Your task to perform on an android device: Go to eBay Image 0: 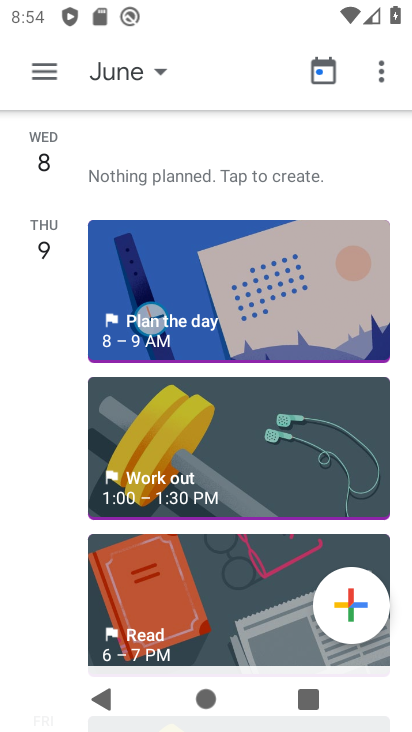
Step 0: press home button
Your task to perform on an android device: Go to eBay Image 1: 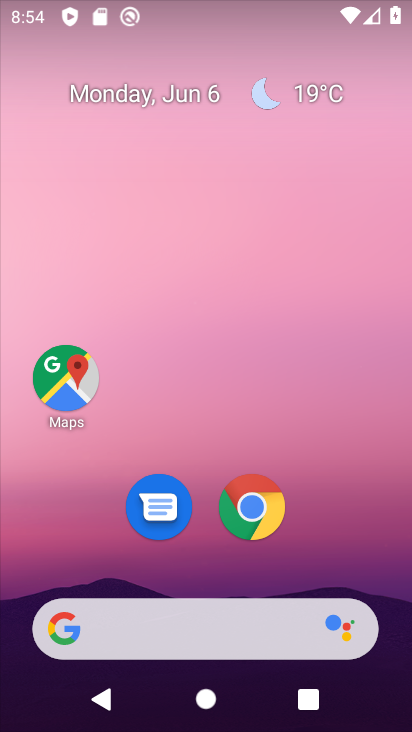
Step 1: click (259, 504)
Your task to perform on an android device: Go to eBay Image 2: 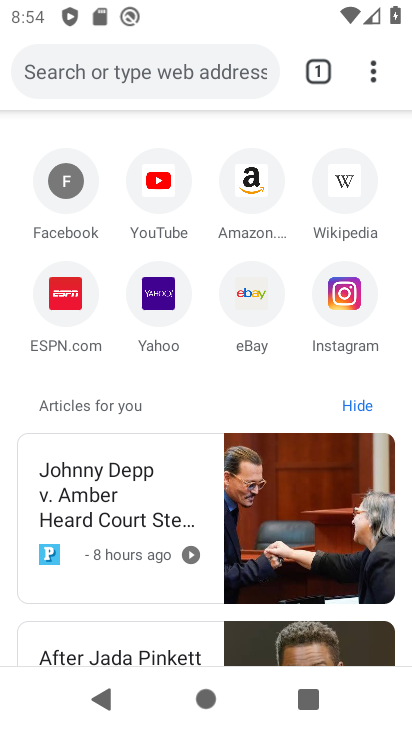
Step 2: click (258, 297)
Your task to perform on an android device: Go to eBay Image 3: 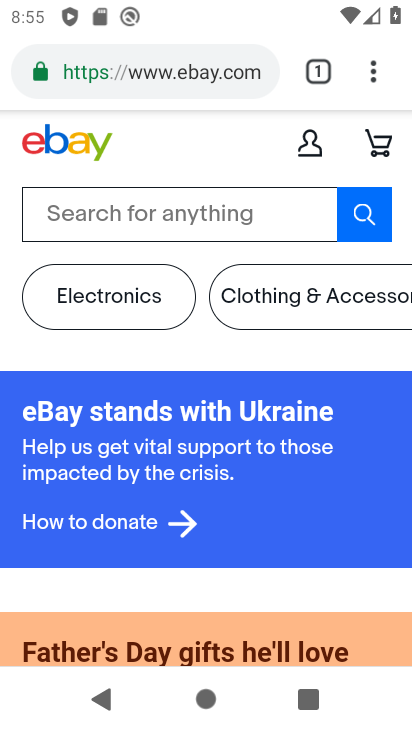
Step 3: task complete